Your task to perform on an android device: Open CNN.com Image 0: 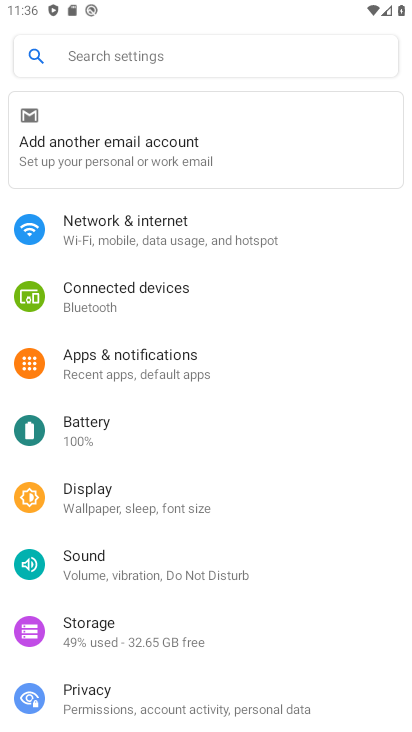
Step 0: press home button
Your task to perform on an android device: Open CNN.com Image 1: 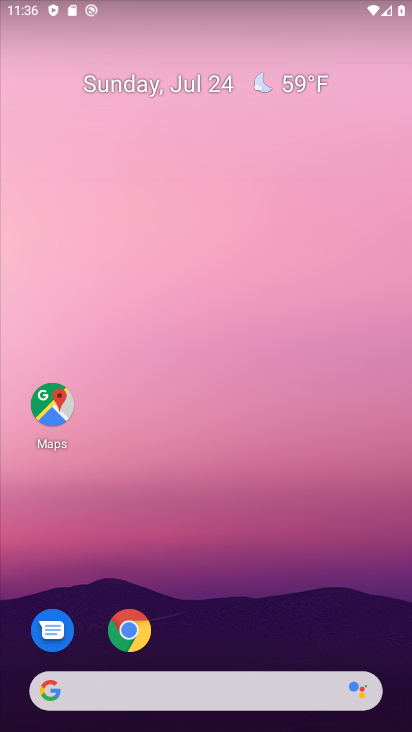
Step 1: click (222, 176)
Your task to perform on an android device: Open CNN.com Image 2: 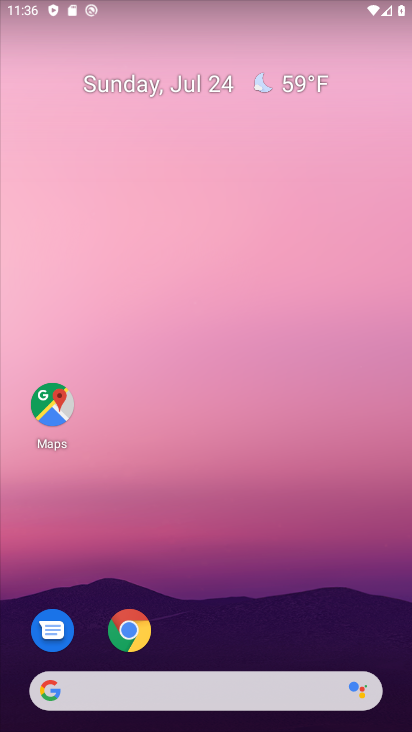
Step 2: drag from (196, 669) to (196, 186)
Your task to perform on an android device: Open CNN.com Image 3: 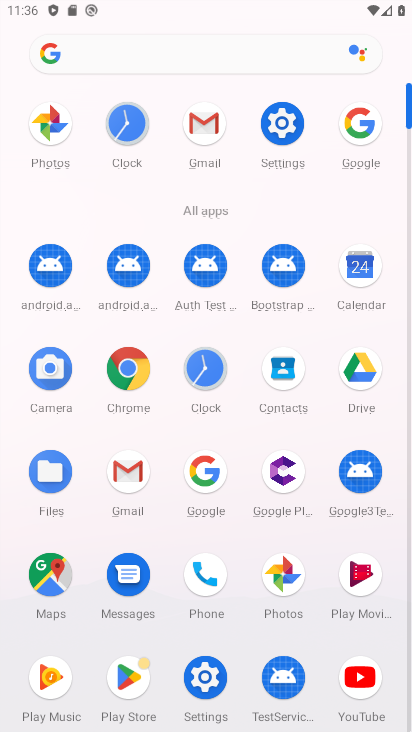
Step 3: click (201, 474)
Your task to perform on an android device: Open CNN.com Image 4: 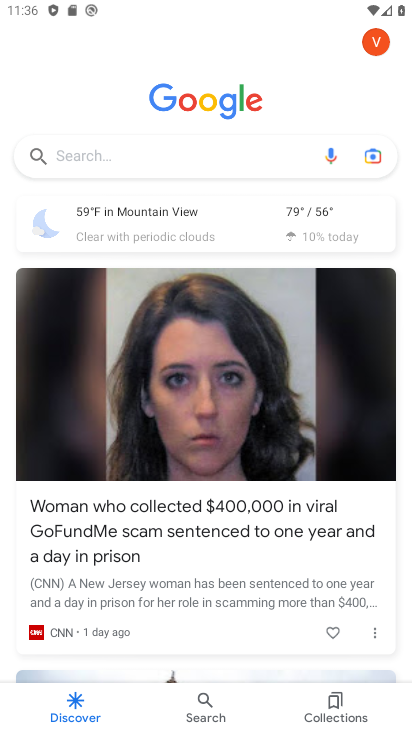
Step 4: drag from (192, 154) to (109, 154)
Your task to perform on an android device: Open CNN.com Image 5: 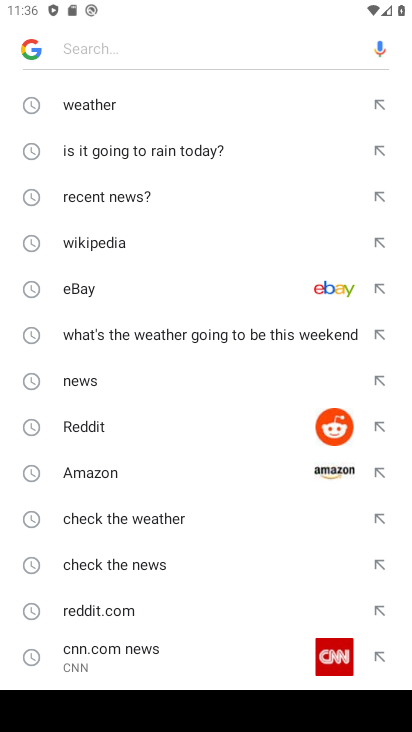
Step 5: click (119, 650)
Your task to perform on an android device: Open CNN.com Image 6: 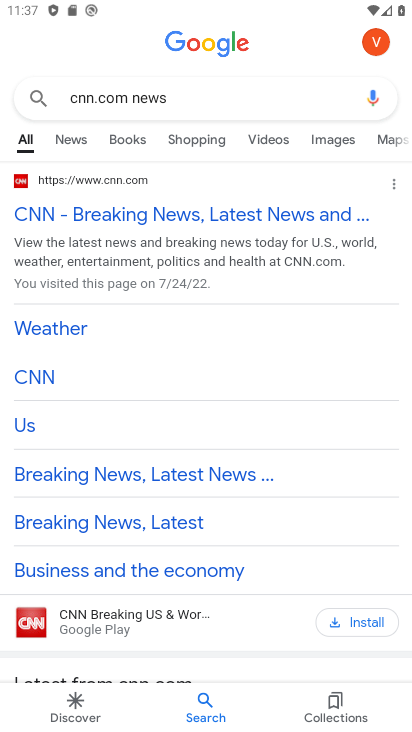
Step 6: click (162, 219)
Your task to perform on an android device: Open CNN.com Image 7: 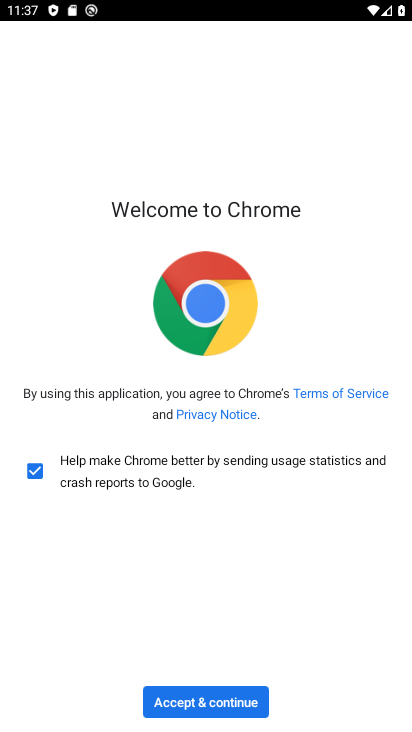
Step 7: click (166, 703)
Your task to perform on an android device: Open CNN.com Image 8: 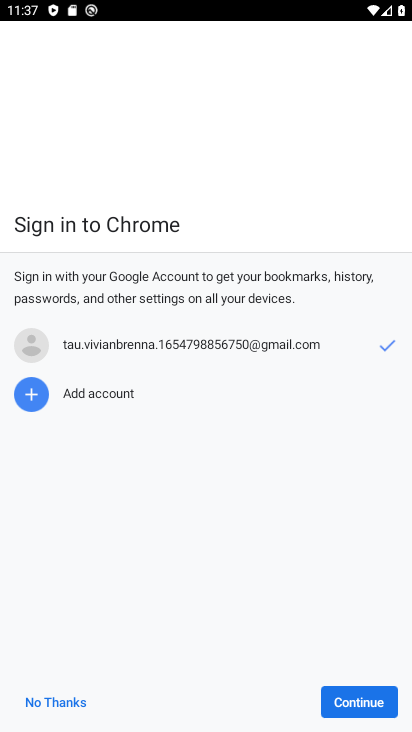
Step 8: click (378, 698)
Your task to perform on an android device: Open CNN.com Image 9: 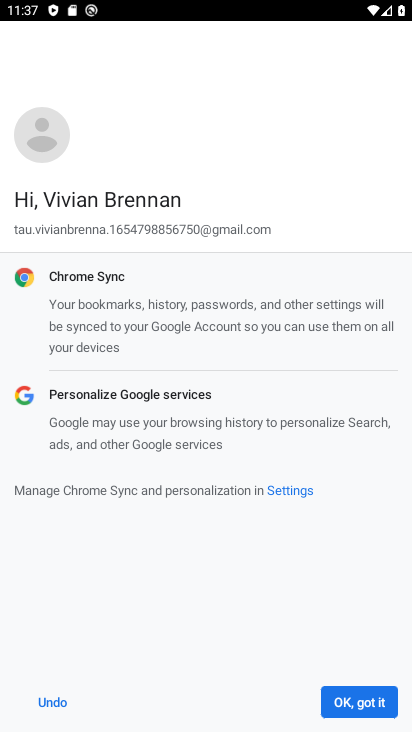
Step 9: click (378, 698)
Your task to perform on an android device: Open CNN.com Image 10: 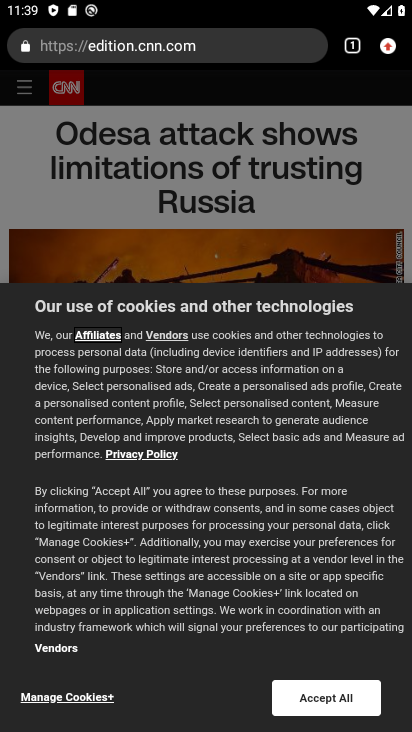
Step 10: task complete